Your task to perform on an android device: Go to network settings Image 0: 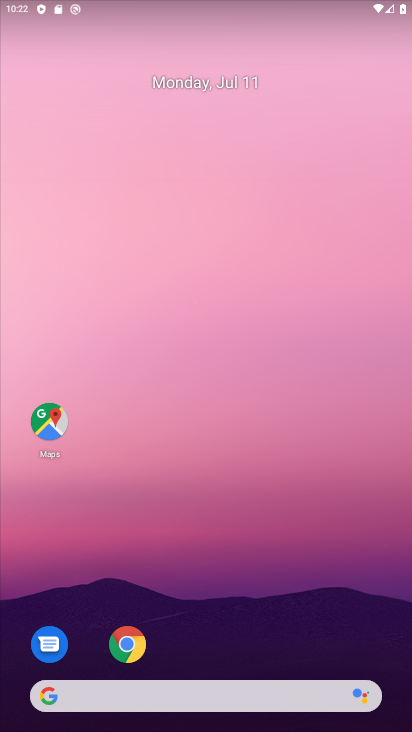
Step 0: drag from (186, 575) to (268, 33)
Your task to perform on an android device: Go to network settings Image 1: 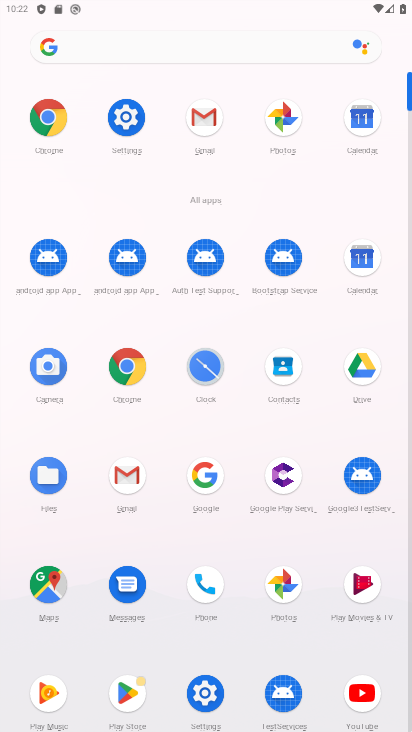
Step 1: click (206, 688)
Your task to perform on an android device: Go to network settings Image 2: 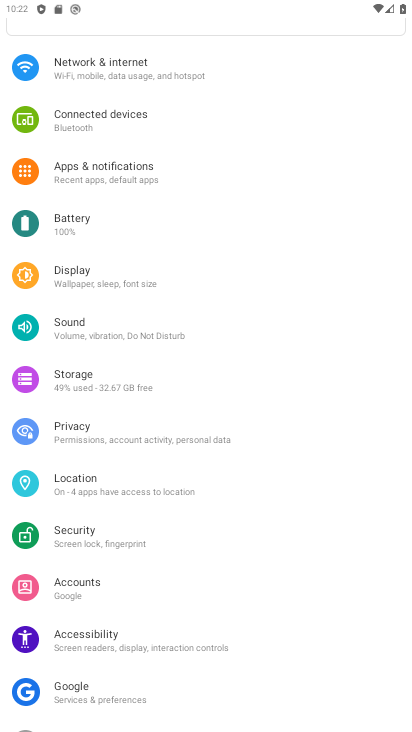
Step 2: drag from (138, 137) to (134, 462)
Your task to perform on an android device: Go to network settings Image 3: 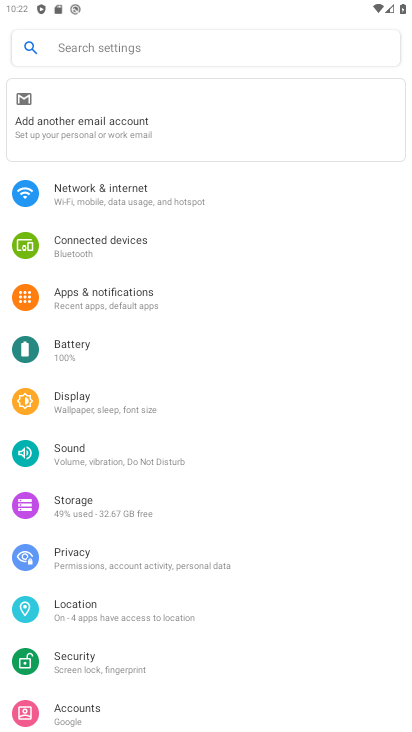
Step 3: click (123, 199)
Your task to perform on an android device: Go to network settings Image 4: 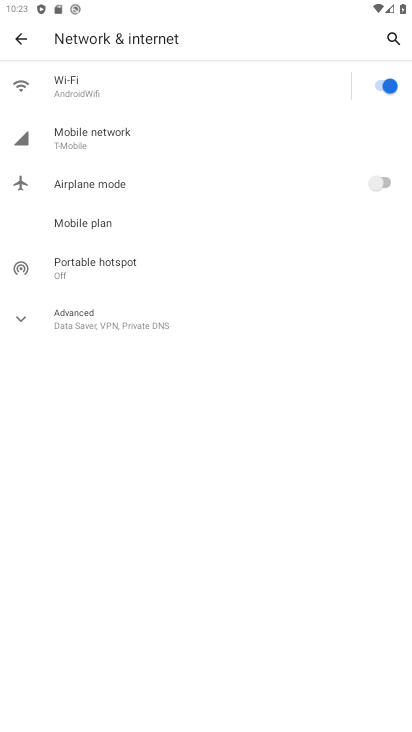
Step 4: task complete